Your task to perform on an android device: Is it going to rain this weekend? Image 0: 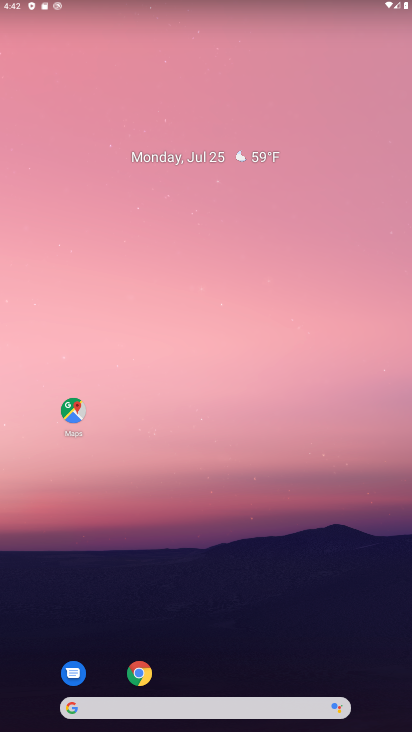
Step 0: drag from (207, 227) to (246, 196)
Your task to perform on an android device: Is it going to rain this weekend? Image 1: 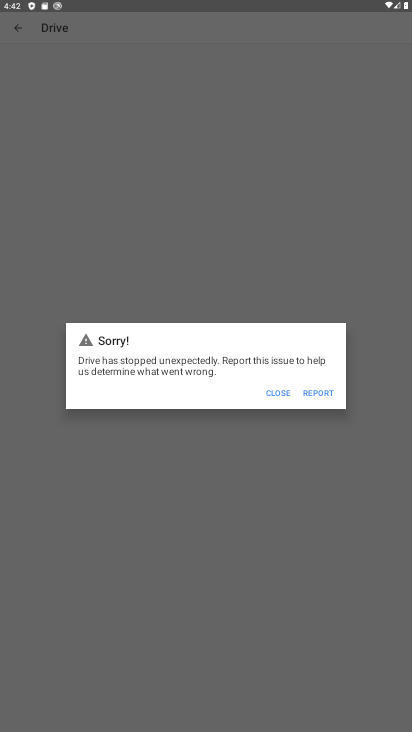
Step 1: task complete